Your task to perform on an android device: What's the news in Colombia? Image 0: 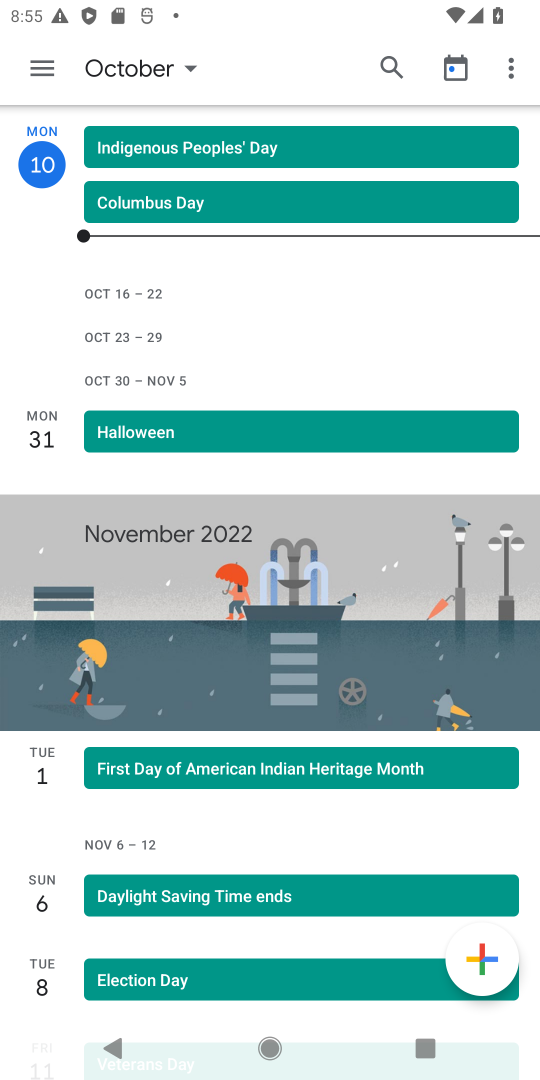
Step 0: press home button
Your task to perform on an android device: What's the news in Colombia? Image 1: 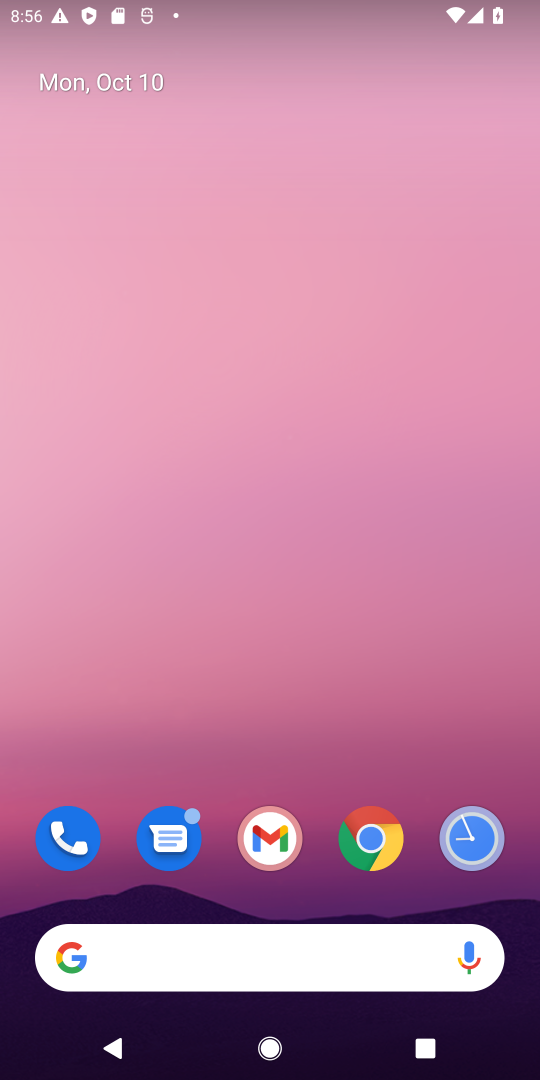
Step 1: click (380, 847)
Your task to perform on an android device: What's the news in Colombia? Image 2: 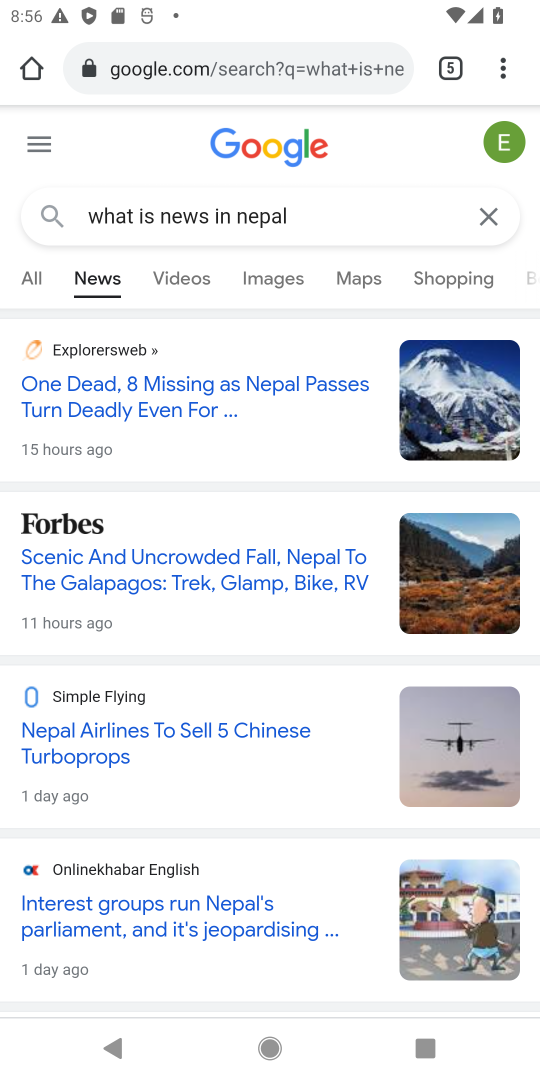
Step 2: click (487, 216)
Your task to perform on an android device: What's the news in Colombia? Image 3: 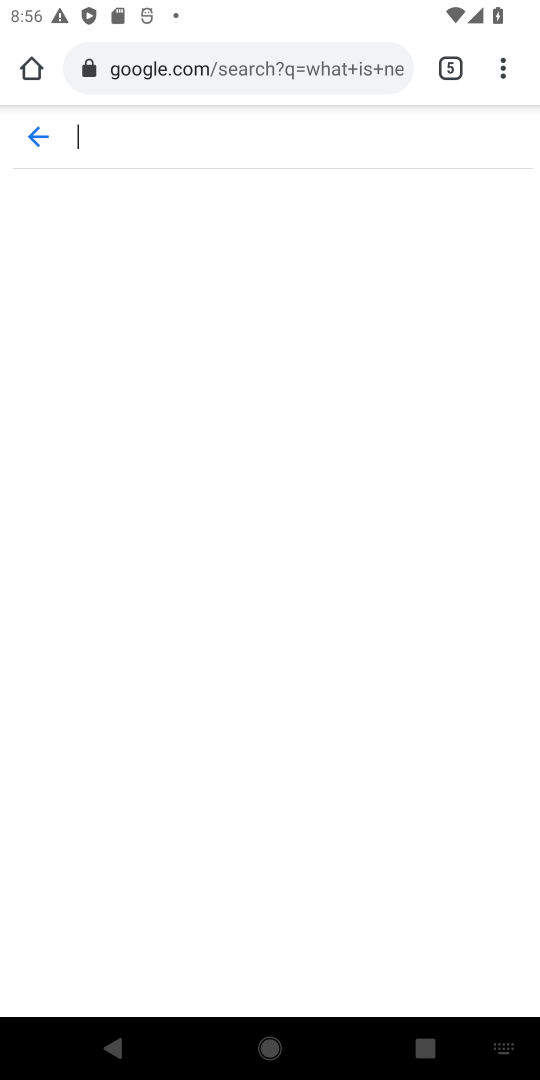
Step 3: type "What's the news in Colombia?"
Your task to perform on an android device: What's the news in Colombia? Image 4: 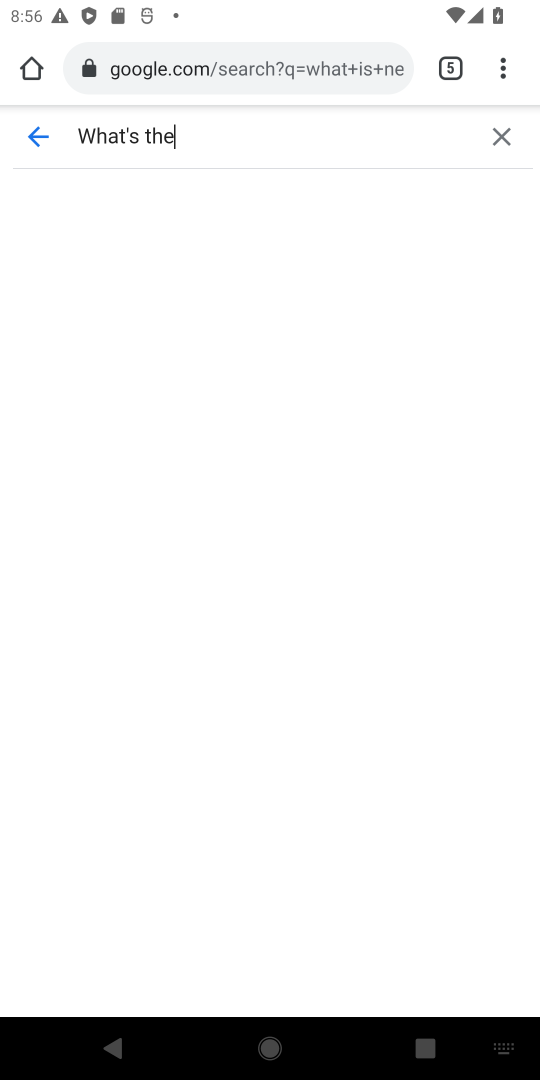
Step 4: type ""
Your task to perform on an android device: What's the news in Colombia? Image 5: 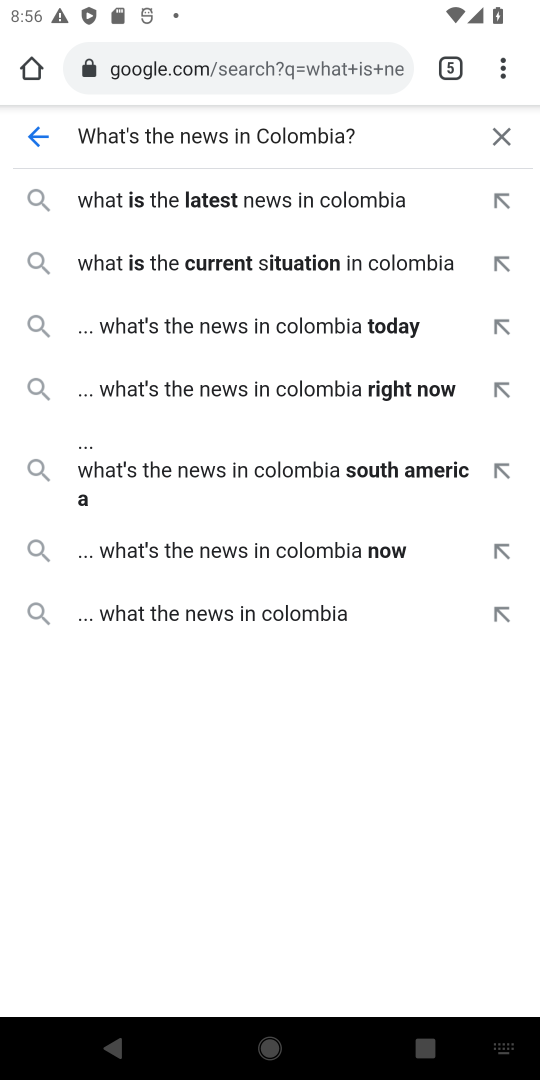
Step 5: click (257, 614)
Your task to perform on an android device: What's the news in Colombia? Image 6: 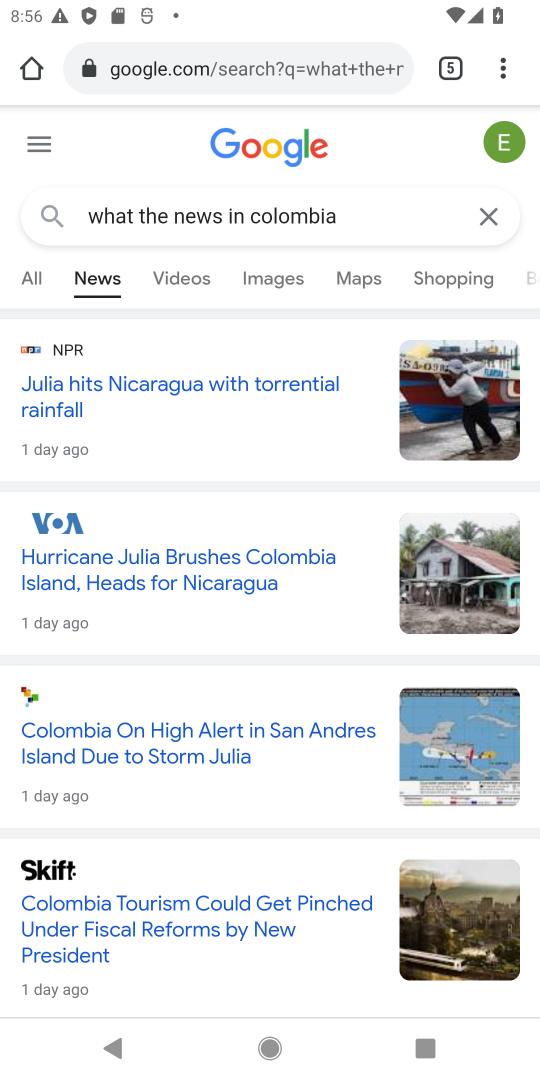
Step 6: task complete